Your task to perform on an android device: toggle wifi Image 0: 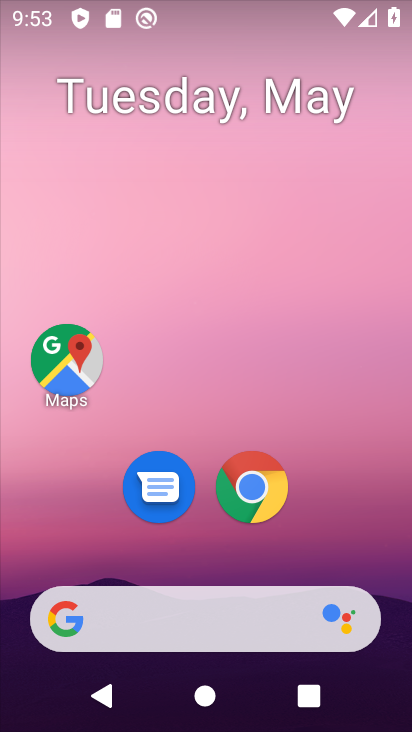
Step 0: drag from (194, 551) to (230, 135)
Your task to perform on an android device: toggle wifi Image 1: 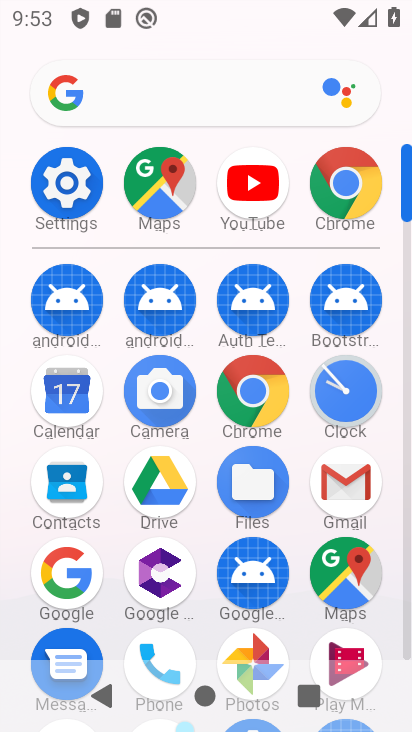
Step 1: click (74, 181)
Your task to perform on an android device: toggle wifi Image 2: 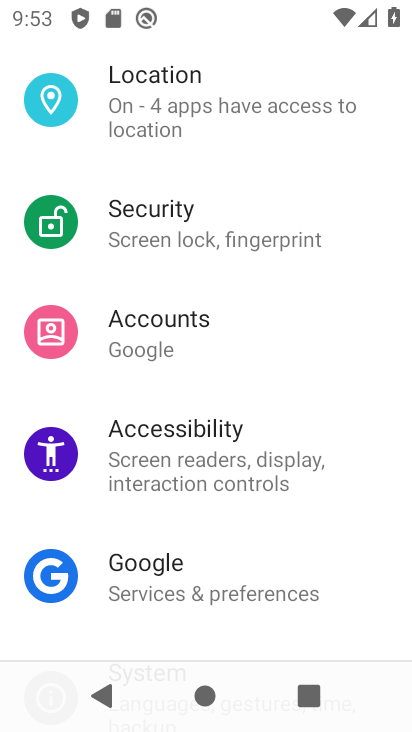
Step 2: drag from (185, 155) to (281, 612)
Your task to perform on an android device: toggle wifi Image 3: 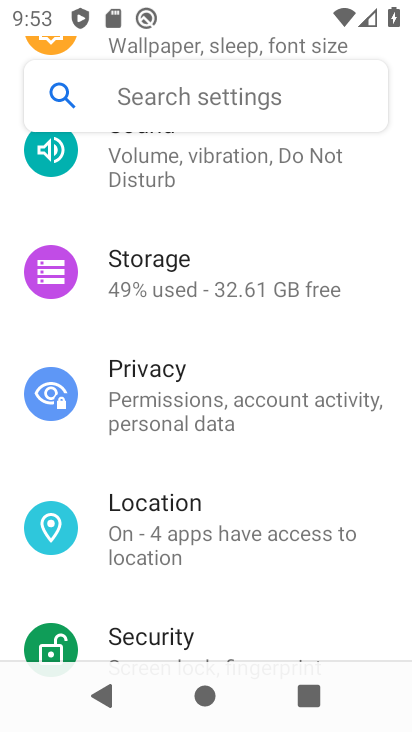
Step 3: drag from (213, 219) to (288, 660)
Your task to perform on an android device: toggle wifi Image 4: 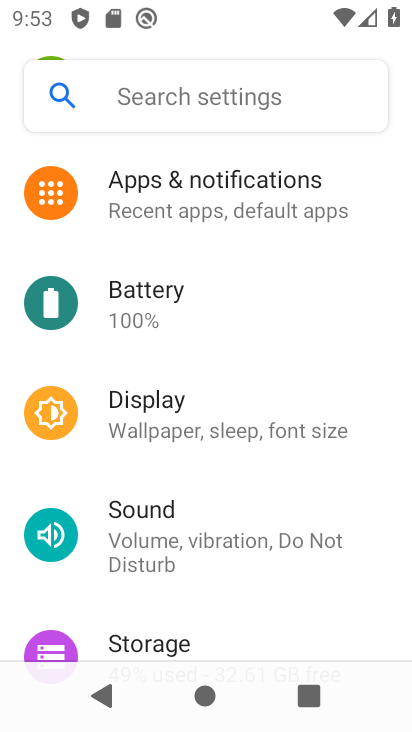
Step 4: drag from (189, 249) to (308, 699)
Your task to perform on an android device: toggle wifi Image 5: 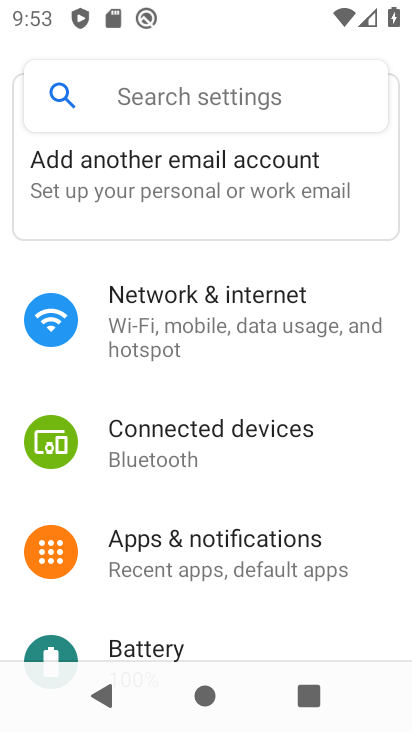
Step 5: click (186, 309)
Your task to perform on an android device: toggle wifi Image 6: 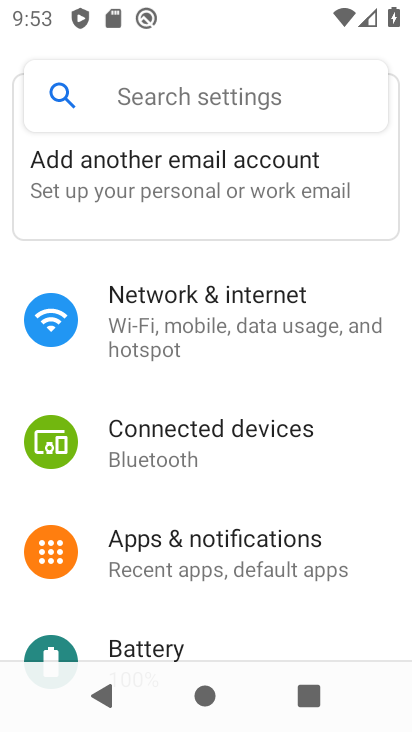
Step 6: click (186, 309)
Your task to perform on an android device: toggle wifi Image 7: 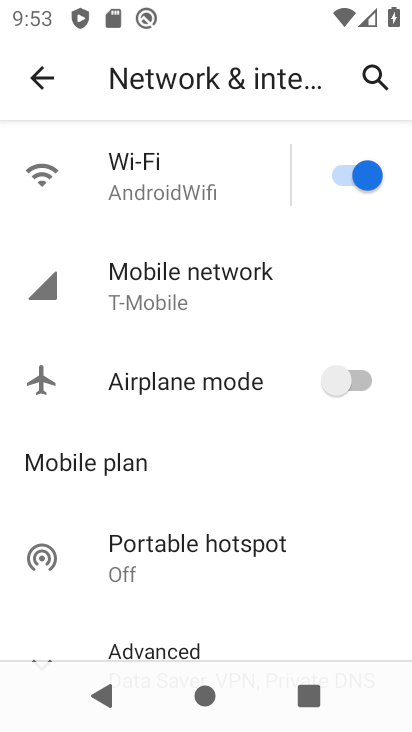
Step 7: click (224, 196)
Your task to perform on an android device: toggle wifi Image 8: 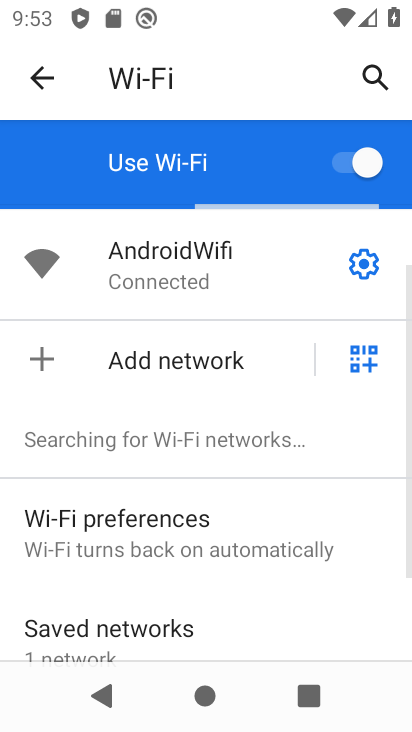
Step 8: drag from (244, 542) to (264, 315)
Your task to perform on an android device: toggle wifi Image 9: 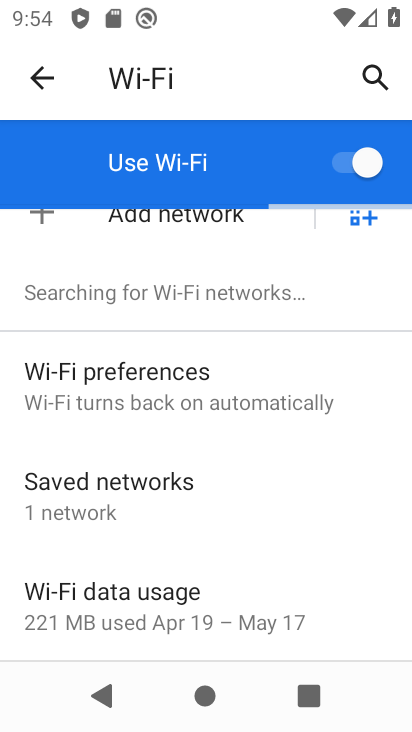
Step 9: drag from (203, 343) to (341, 730)
Your task to perform on an android device: toggle wifi Image 10: 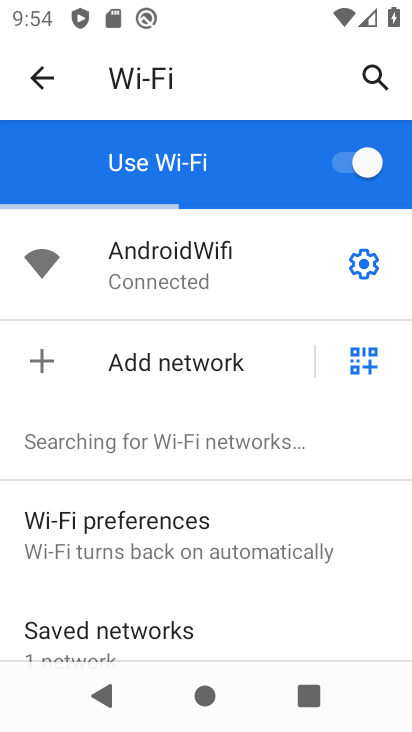
Step 10: click (368, 179)
Your task to perform on an android device: toggle wifi Image 11: 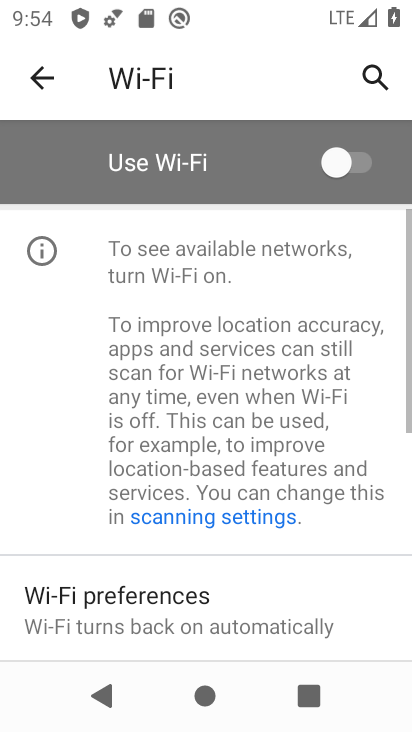
Step 11: task complete